Your task to perform on an android device: toggle show notifications on the lock screen Image 0: 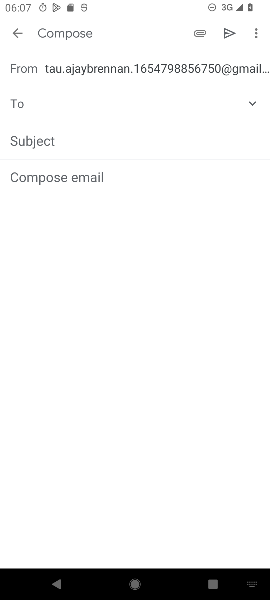
Step 0: press home button
Your task to perform on an android device: toggle show notifications on the lock screen Image 1: 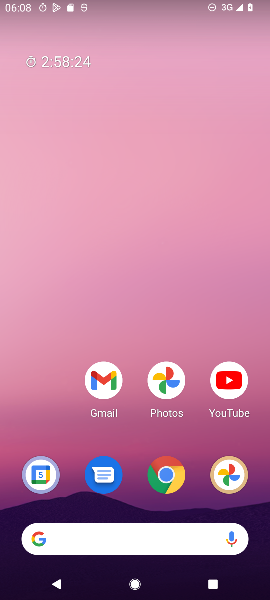
Step 1: drag from (76, 397) to (80, 171)
Your task to perform on an android device: toggle show notifications on the lock screen Image 2: 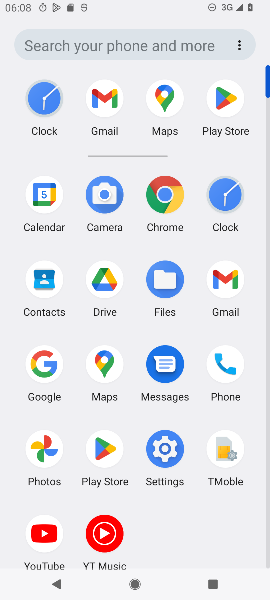
Step 2: click (163, 455)
Your task to perform on an android device: toggle show notifications on the lock screen Image 3: 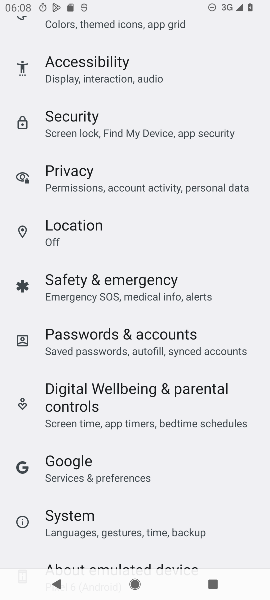
Step 3: drag from (238, 238) to (247, 312)
Your task to perform on an android device: toggle show notifications on the lock screen Image 4: 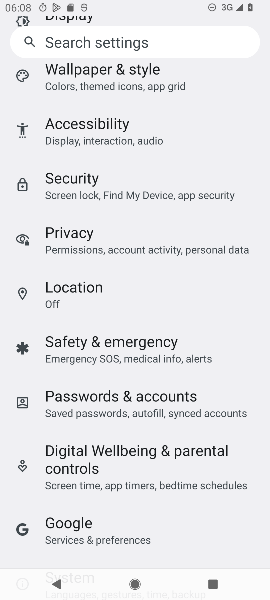
Step 4: drag from (248, 210) to (251, 301)
Your task to perform on an android device: toggle show notifications on the lock screen Image 5: 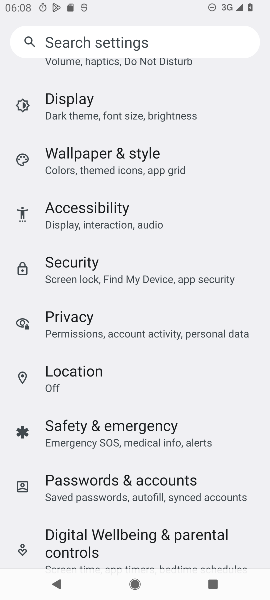
Step 5: drag from (242, 198) to (244, 293)
Your task to perform on an android device: toggle show notifications on the lock screen Image 6: 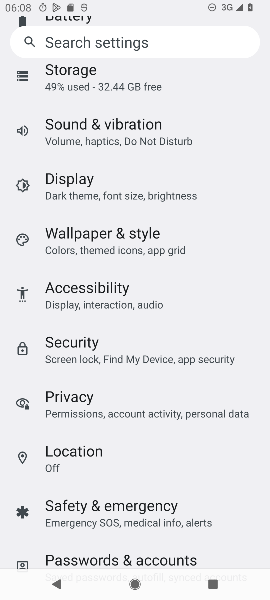
Step 6: drag from (245, 175) to (243, 297)
Your task to perform on an android device: toggle show notifications on the lock screen Image 7: 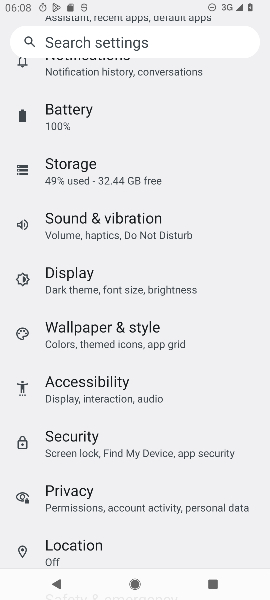
Step 7: drag from (232, 170) to (236, 272)
Your task to perform on an android device: toggle show notifications on the lock screen Image 8: 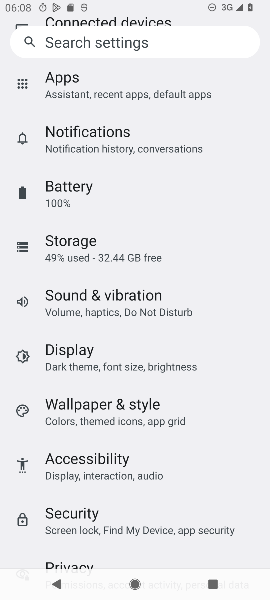
Step 8: drag from (228, 162) to (230, 261)
Your task to perform on an android device: toggle show notifications on the lock screen Image 9: 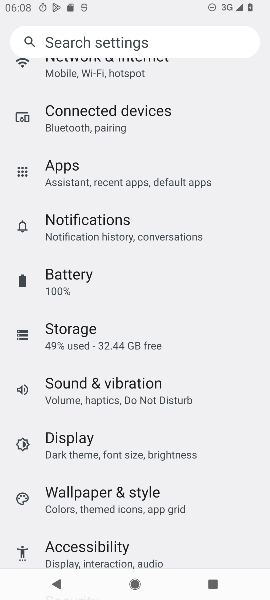
Step 9: drag from (229, 104) to (236, 294)
Your task to perform on an android device: toggle show notifications on the lock screen Image 10: 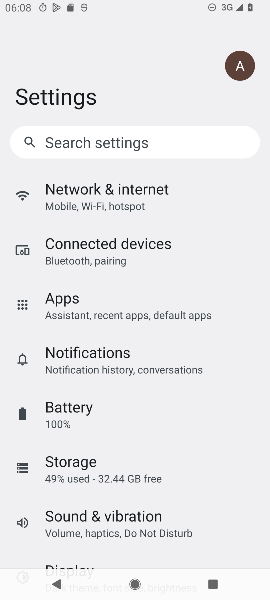
Step 10: click (196, 351)
Your task to perform on an android device: toggle show notifications on the lock screen Image 11: 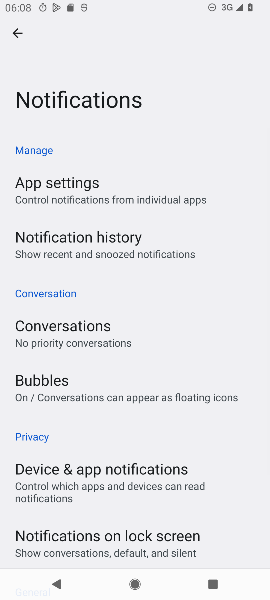
Step 11: drag from (195, 354) to (201, 275)
Your task to perform on an android device: toggle show notifications on the lock screen Image 12: 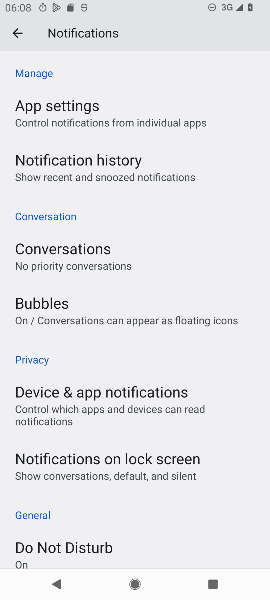
Step 12: drag from (234, 437) to (238, 337)
Your task to perform on an android device: toggle show notifications on the lock screen Image 13: 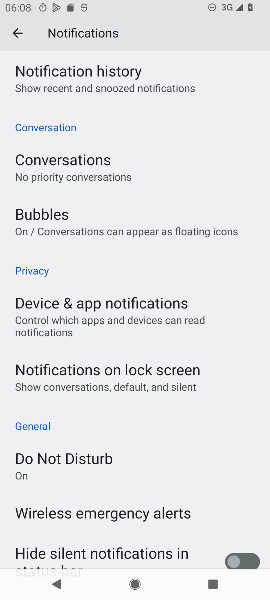
Step 13: drag from (228, 431) to (230, 369)
Your task to perform on an android device: toggle show notifications on the lock screen Image 14: 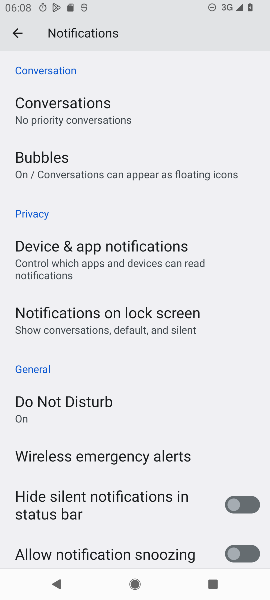
Step 14: click (159, 313)
Your task to perform on an android device: toggle show notifications on the lock screen Image 15: 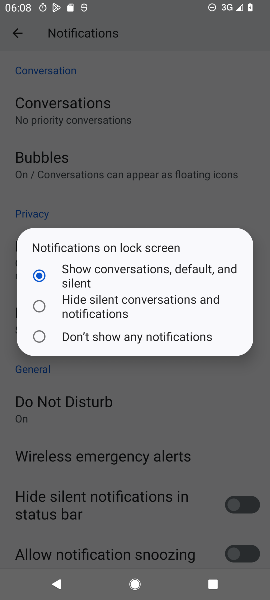
Step 15: click (86, 304)
Your task to perform on an android device: toggle show notifications on the lock screen Image 16: 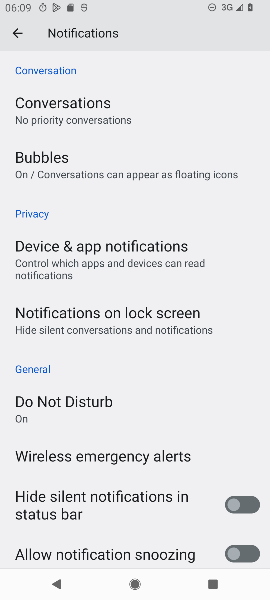
Step 16: task complete